Your task to perform on an android device: Open Reddit.com Image 0: 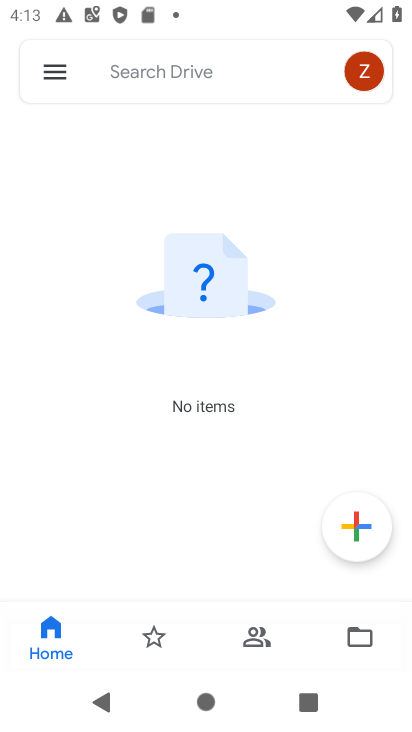
Step 0: press home button
Your task to perform on an android device: Open Reddit.com Image 1: 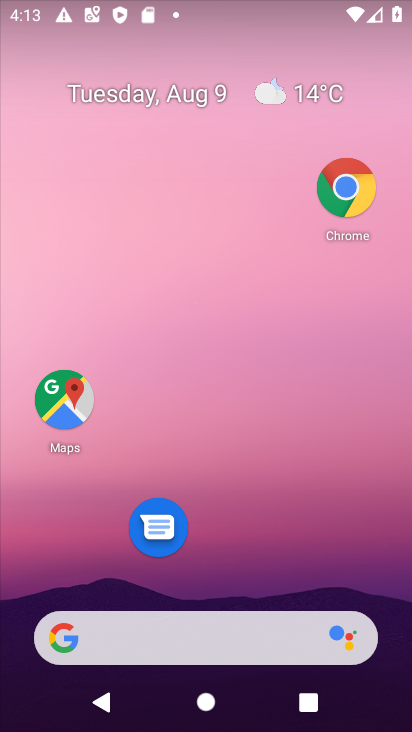
Step 1: click (166, 658)
Your task to perform on an android device: Open Reddit.com Image 2: 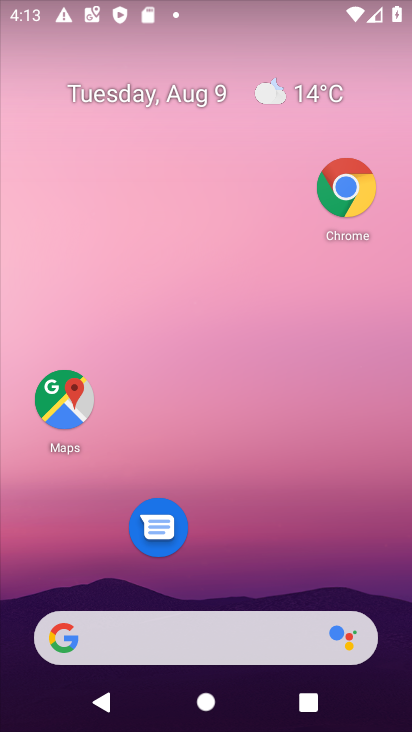
Step 2: click (166, 658)
Your task to perform on an android device: Open Reddit.com Image 3: 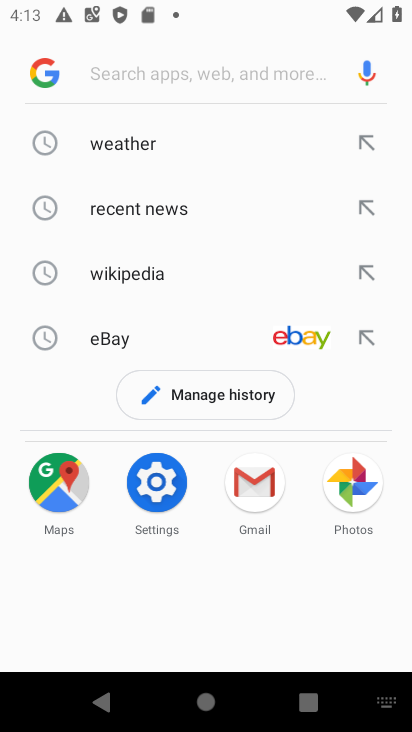
Step 3: type "reddit"
Your task to perform on an android device: Open Reddit.com Image 4: 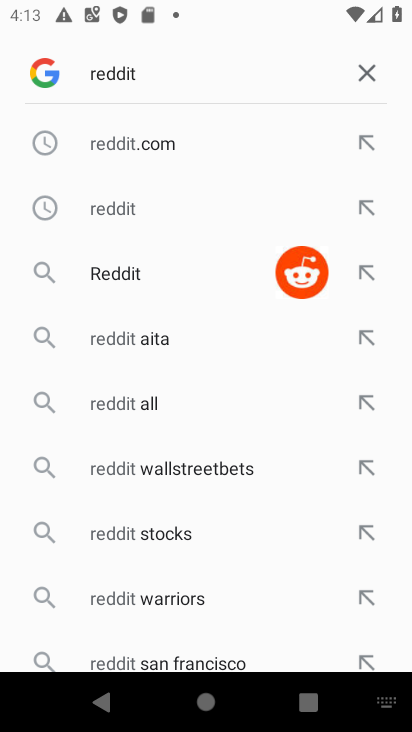
Step 4: click (279, 277)
Your task to perform on an android device: Open Reddit.com Image 5: 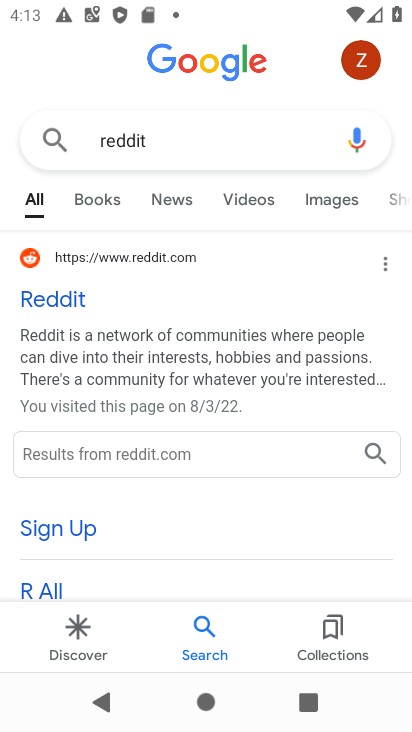
Step 5: task complete